Your task to perform on an android device: change alarm snooze length Image 0: 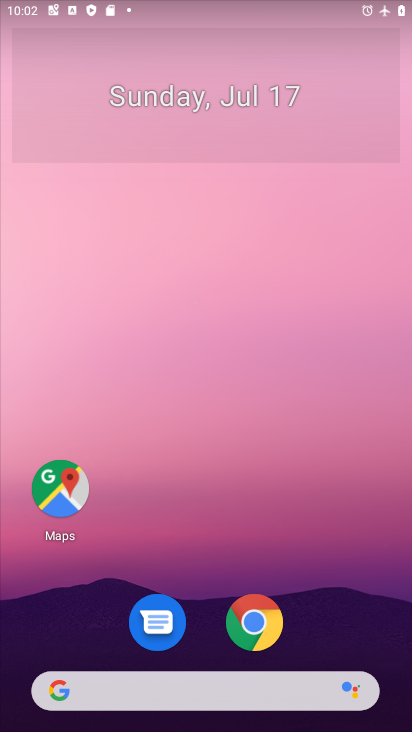
Step 0: drag from (293, 593) to (358, 73)
Your task to perform on an android device: change alarm snooze length Image 1: 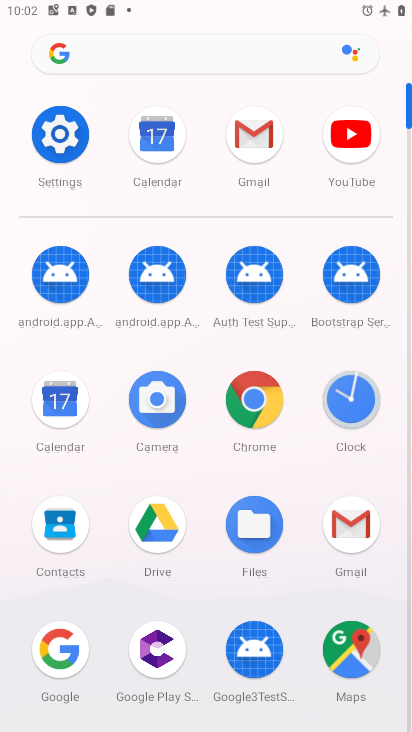
Step 1: click (347, 406)
Your task to perform on an android device: change alarm snooze length Image 2: 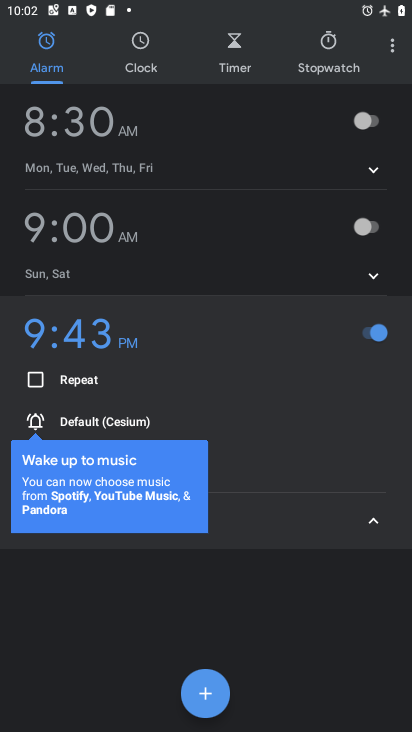
Step 2: click (395, 39)
Your task to perform on an android device: change alarm snooze length Image 3: 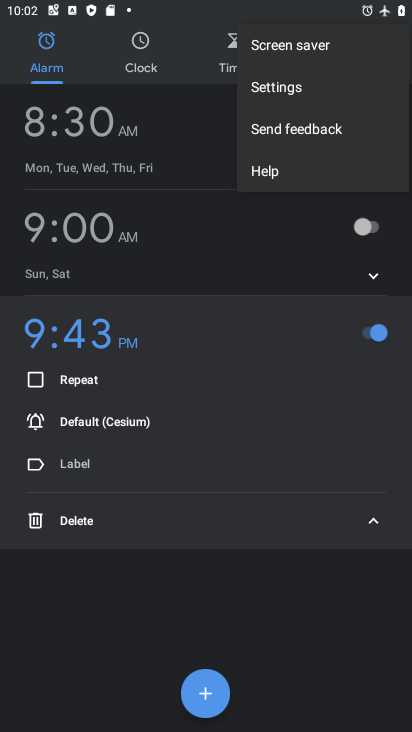
Step 3: click (291, 87)
Your task to perform on an android device: change alarm snooze length Image 4: 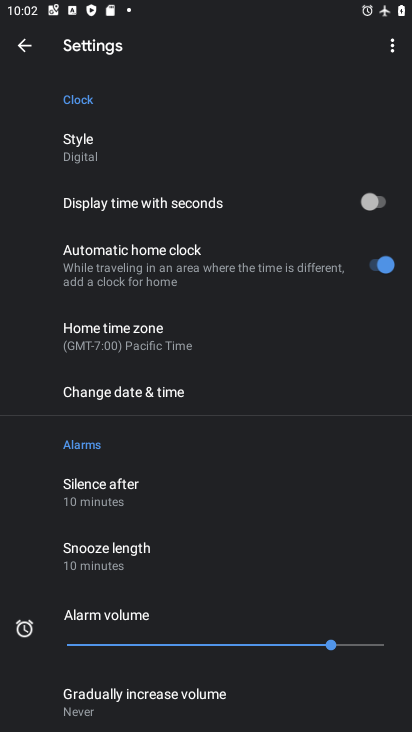
Step 4: click (149, 549)
Your task to perform on an android device: change alarm snooze length Image 5: 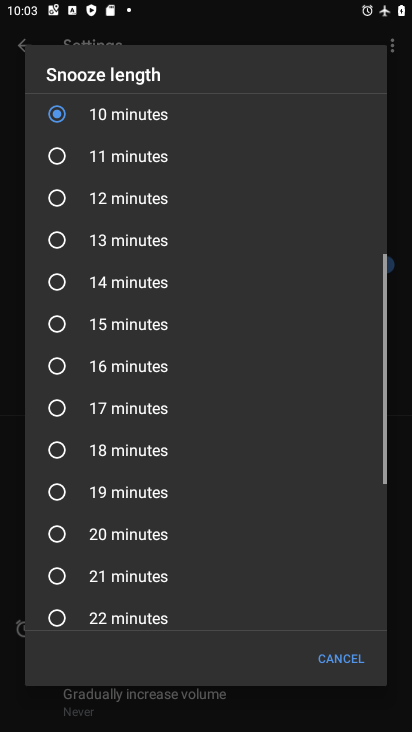
Step 5: click (132, 416)
Your task to perform on an android device: change alarm snooze length Image 6: 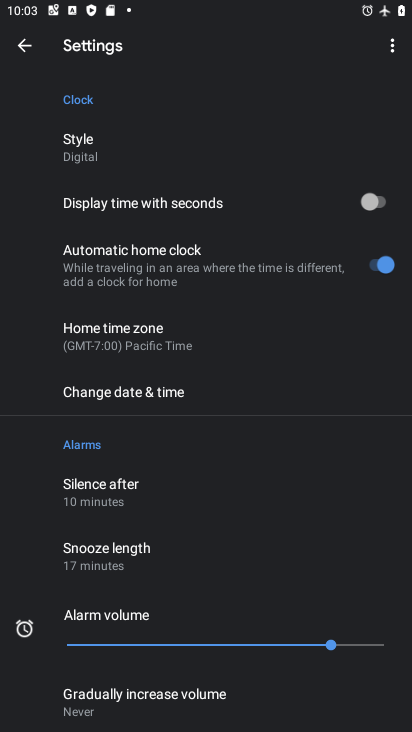
Step 6: task complete